Your task to perform on an android device: Open settings on Google Maps Image 0: 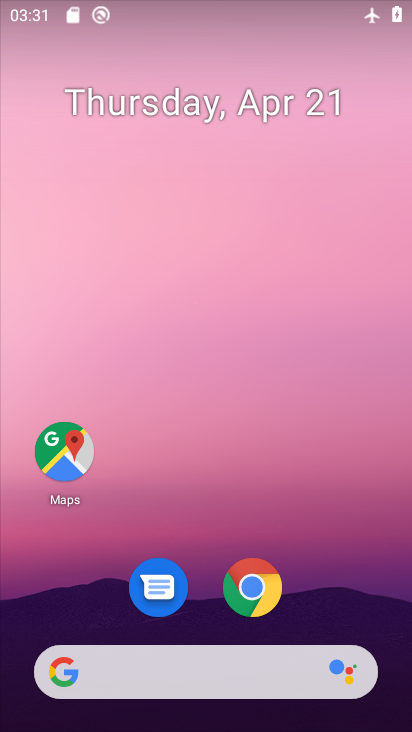
Step 0: drag from (369, 594) to (363, 217)
Your task to perform on an android device: Open settings on Google Maps Image 1: 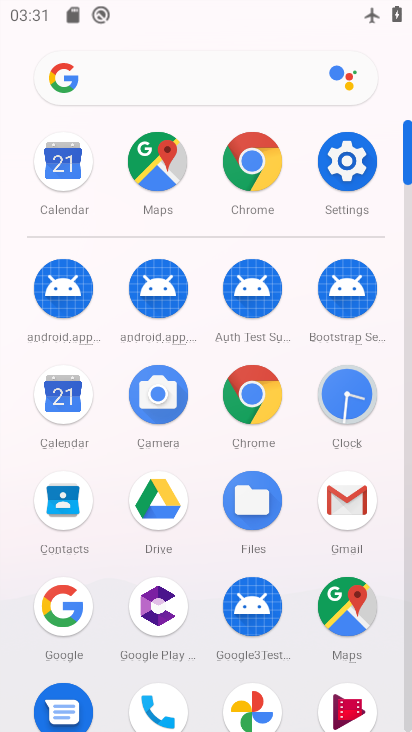
Step 1: click (351, 615)
Your task to perform on an android device: Open settings on Google Maps Image 2: 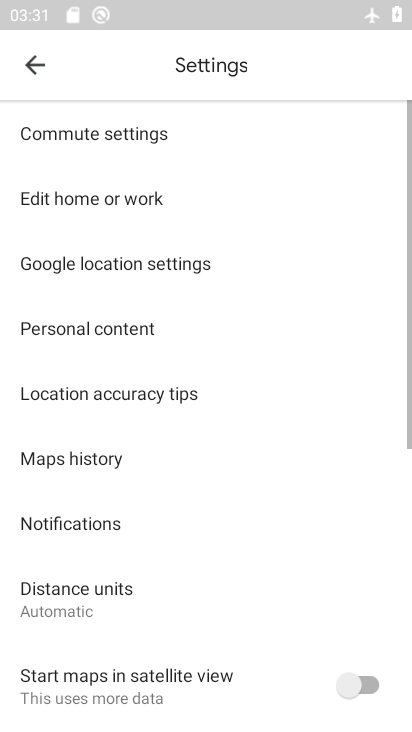
Step 2: task complete